Your task to perform on an android device: find snoozed emails in the gmail app Image 0: 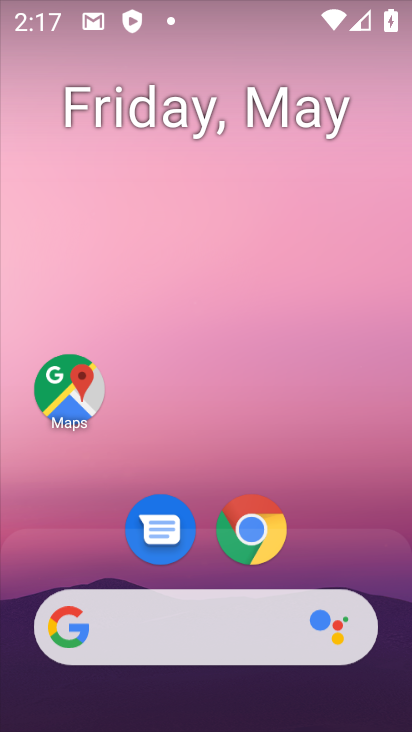
Step 0: drag from (365, 517) to (379, 71)
Your task to perform on an android device: find snoozed emails in the gmail app Image 1: 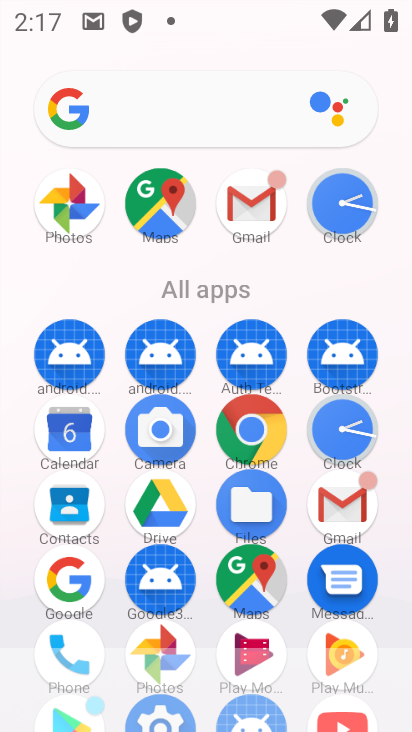
Step 1: click (253, 210)
Your task to perform on an android device: find snoozed emails in the gmail app Image 2: 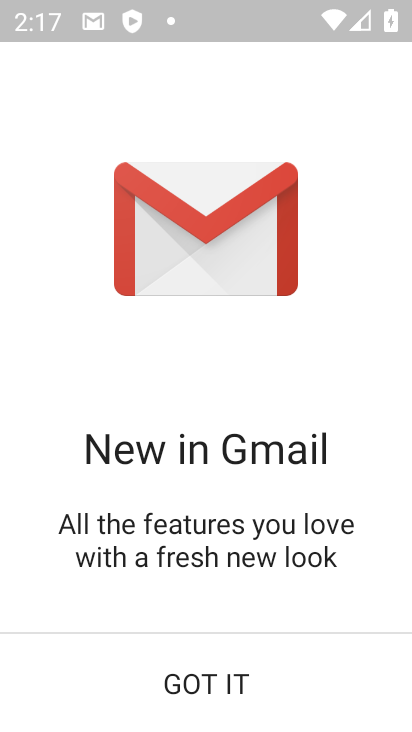
Step 2: click (205, 699)
Your task to perform on an android device: find snoozed emails in the gmail app Image 3: 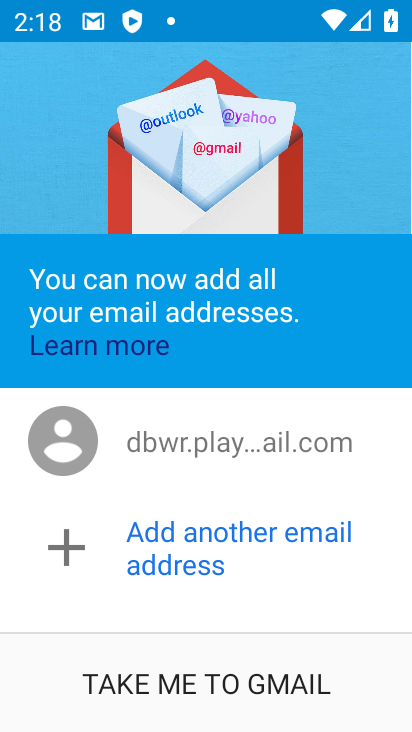
Step 3: click (215, 716)
Your task to perform on an android device: find snoozed emails in the gmail app Image 4: 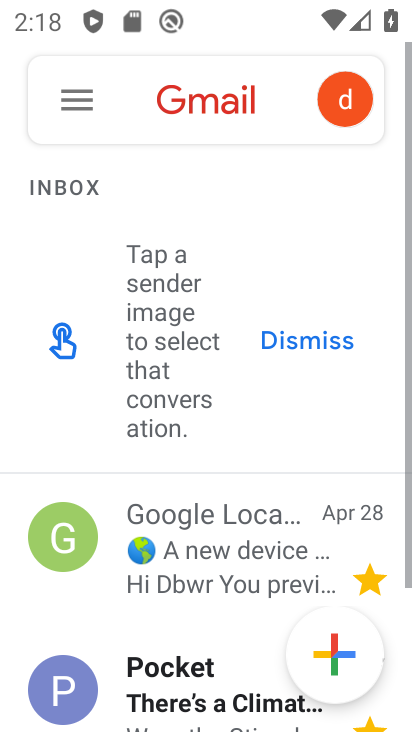
Step 4: click (62, 96)
Your task to perform on an android device: find snoozed emails in the gmail app Image 5: 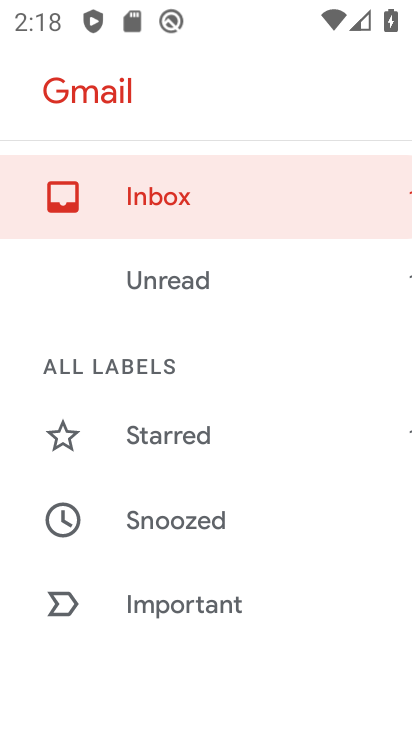
Step 5: click (178, 534)
Your task to perform on an android device: find snoozed emails in the gmail app Image 6: 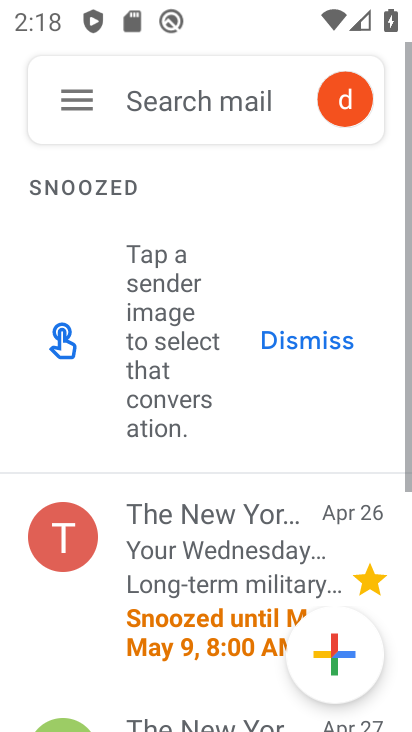
Step 6: task complete